Your task to perform on an android device: visit the assistant section in the google photos Image 0: 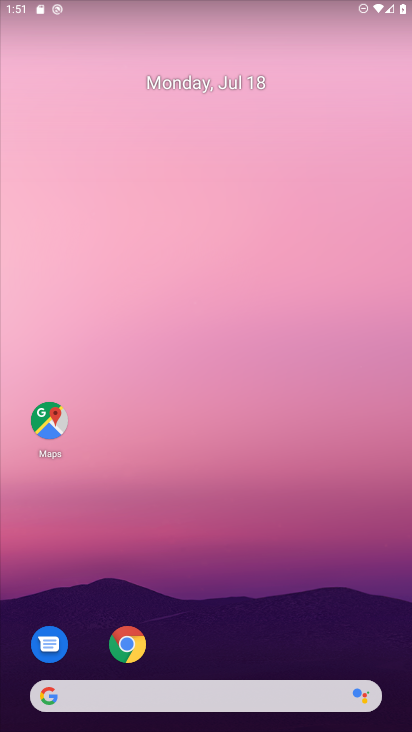
Step 0: drag from (270, 642) to (221, 7)
Your task to perform on an android device: visit the assistant section in the google photos Image 1: 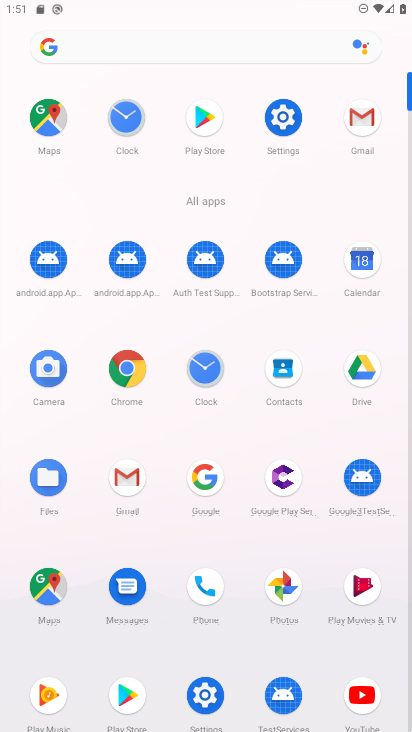
Step 1: click (284, 586)
Your task to perform on an android device: visit the assistant section in the google photos Image 2: 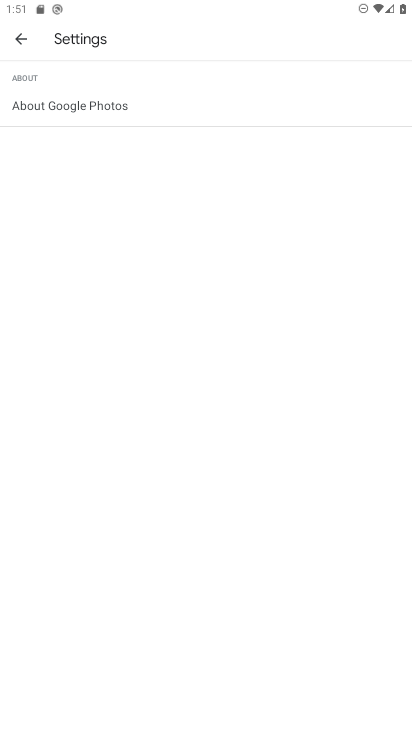
Step 2: click (20, 38)
Your task to perform on an android device: visit the assistant section in the google photos Image 3: 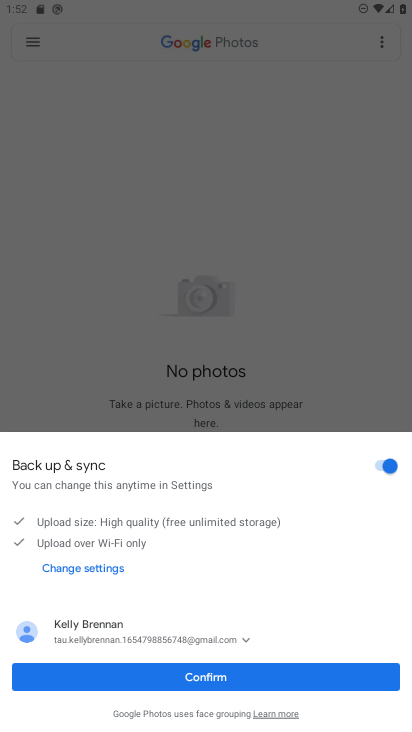
Step 3: click (282, 679)
Your task to perform on an android device: visit the assistant section in the google photos Image 4: 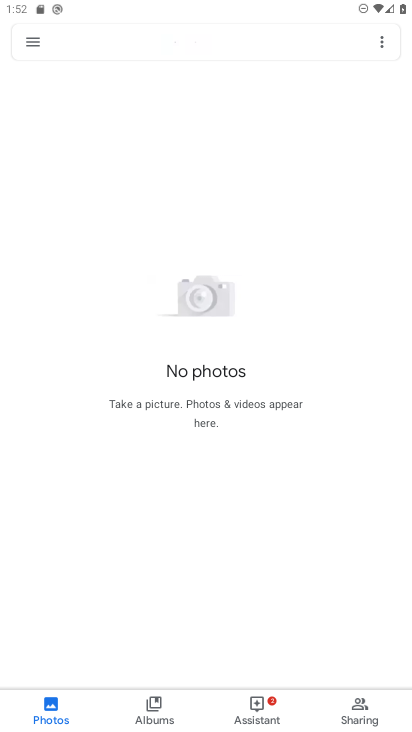
Step 4: click (266, 700)
Your task to perform on an android device: visit the assistant section in the google photos Image 5: 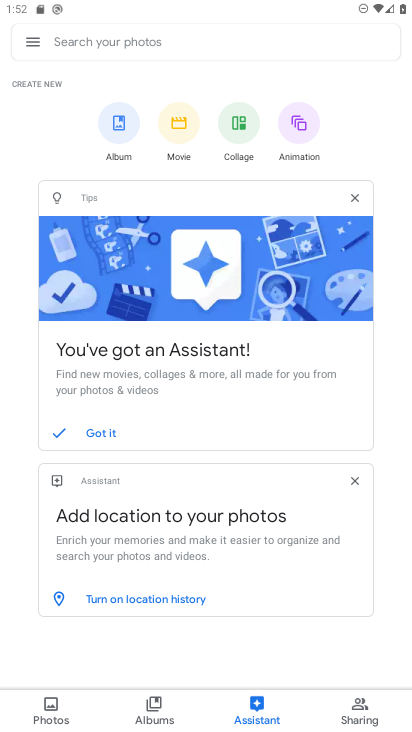
Step 5: click (197, 404)
Your task to perform on an android device: visit the assistant section in the google photos Image 6: 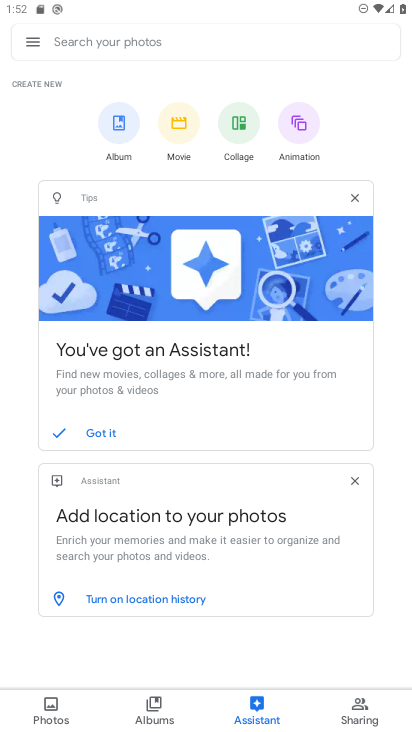
Step 6: click (186, 411)
Your task to perform on an android device: visit the assistant section in the google photos Image 7: 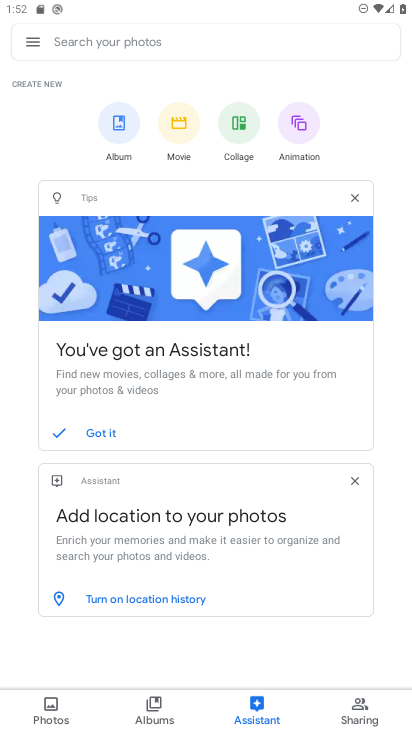
Step 7: task complete